Your task to perform on an android device: turn off priority inbox in the gmail app Image 0: 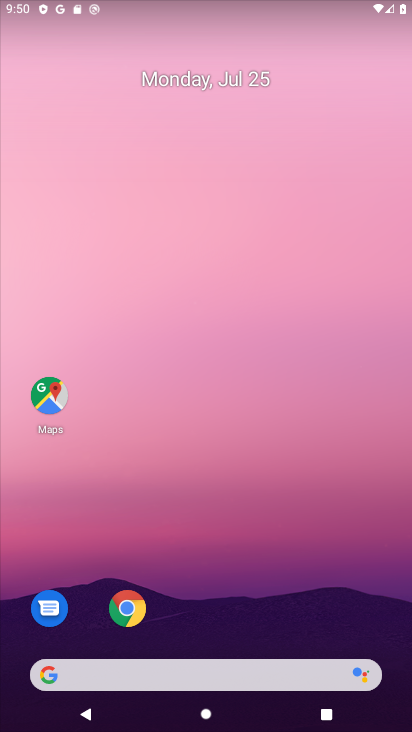
Step 0: click (225, 214)
Your task to perform on an android device: turn off priority inbox in the gmail app Image 1: 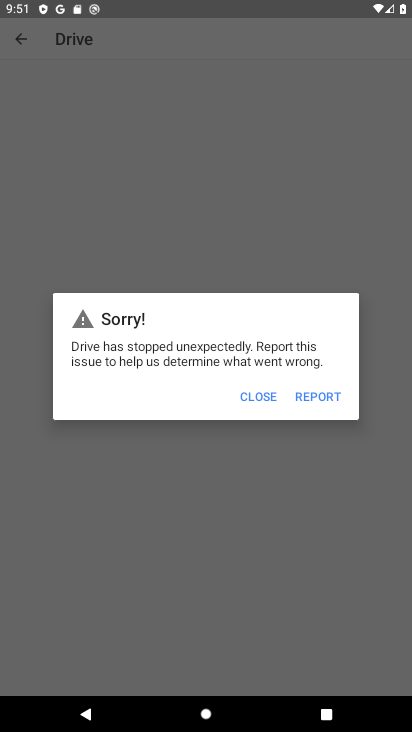
Step 1: press home button
Your task to perform on an android device: turn off priority inbox in the gmail app Image 2: 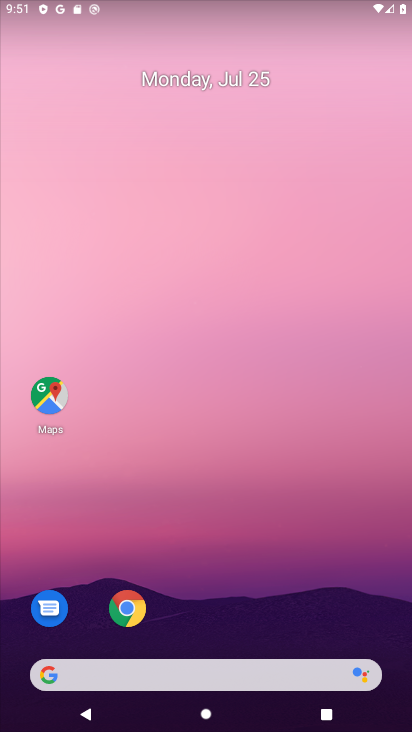
Step 2: drag from (247, 683) to (226, 139)
Your task to perform on an android device: turn off priority inbox in the gmail app Image 3: 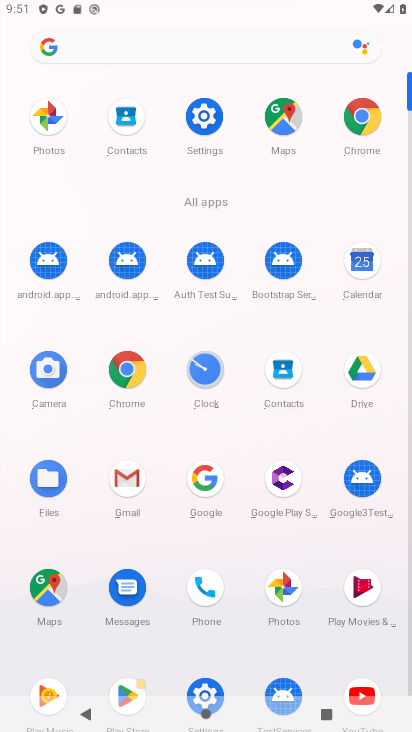
Step 3: click (129, 504)
Your task to perform on an android device: turn off priority inbox in the gmail app Image 4: 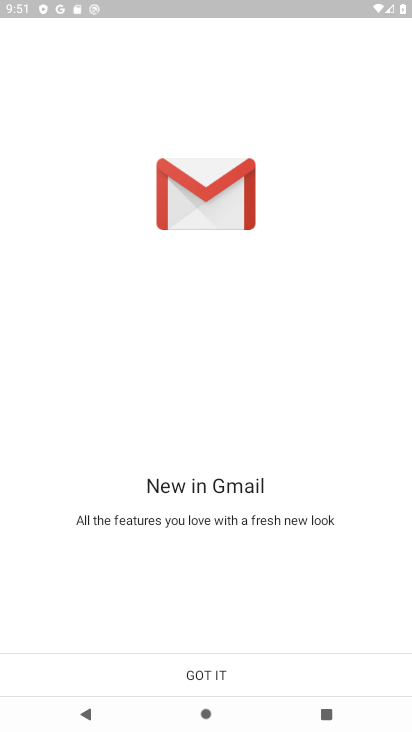
Step 4: click (228, 671)
Your task to perform on an android device: turn off priority inbox in the gmail app Image 5: 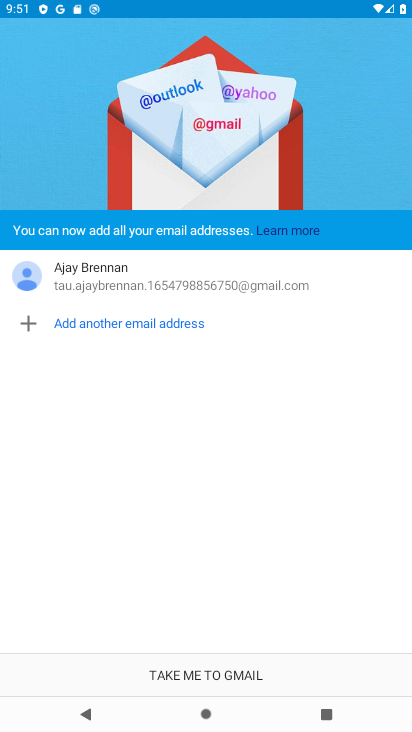
Step 5: click (251, 672)
Your task to perform on an android device: turn off priority inbox in the gmail app Image 6: 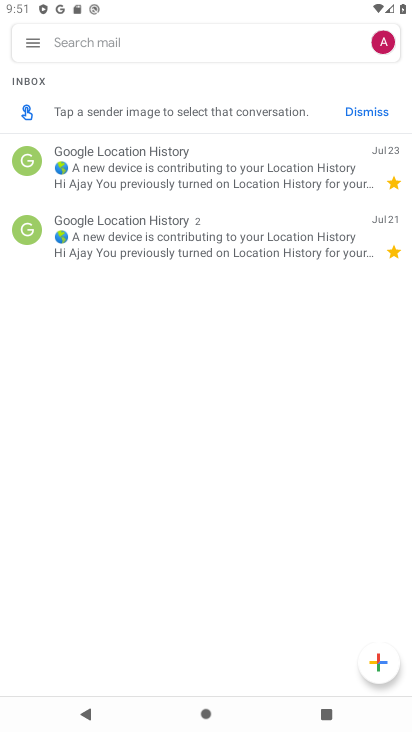
Step 6: click (33, 48)
Your task to perform on an android device: turn off priority inbox in the gmail app Image 7: 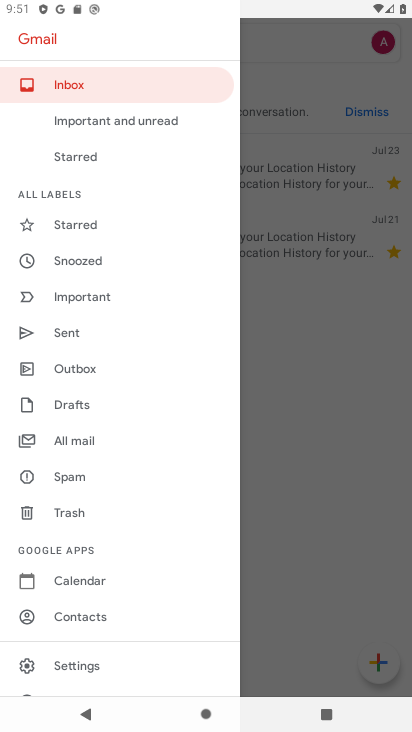
Step 7: click (87, 659)
Your task to perform on an android device: turn off priority inbox in the gmail app Image 8: 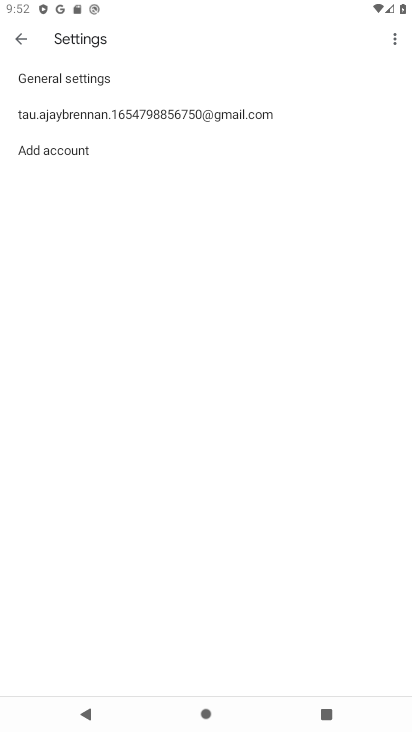
Step 8: click (100, 114)
Your task to perform on an android device: turn off priority inbox in the gmail app Image 9: 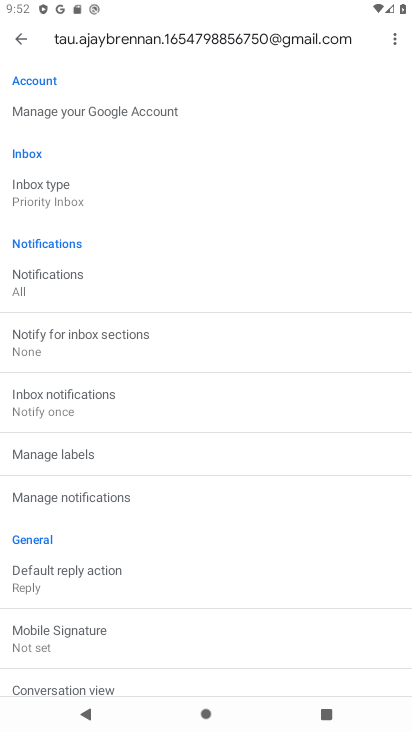
Step 9: click (61, 189)
Your task to perform on an android device: turn off priority inbox in the gmail app Image 10: 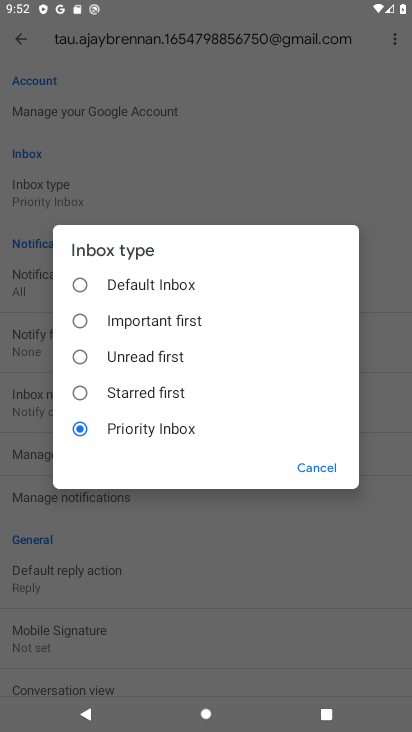
Step 10: click (80, 294)
Your task to perform on an android device: turn off priority inbox in the gmail app Image 11: 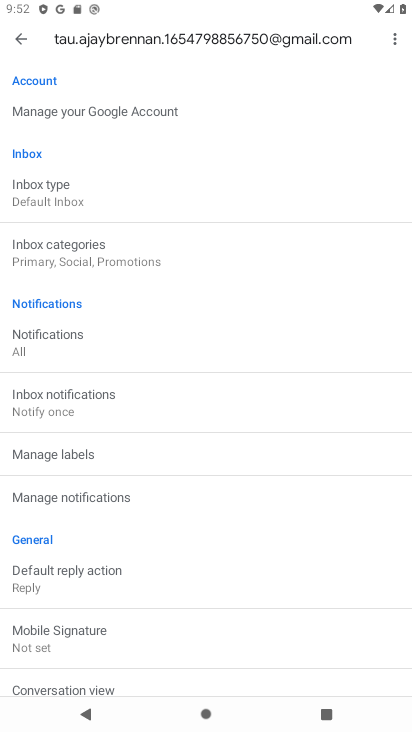
Step 11: task complete